Your task to perform on an android device: create a new album in the google photos Image 0: 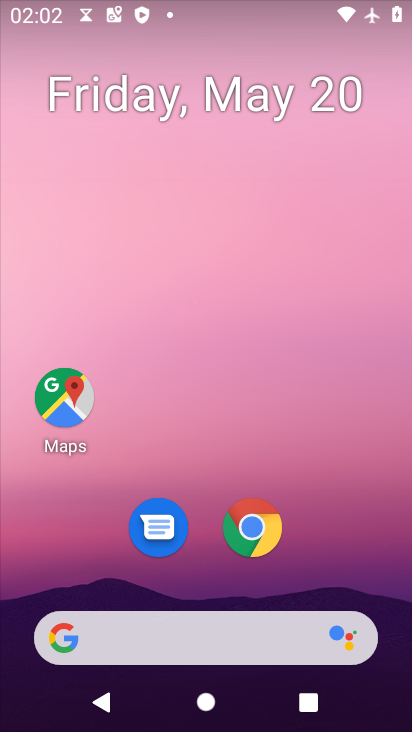
Step 0: press home button
Your task to perform on an android device: create a new album in the google photos Image 1: 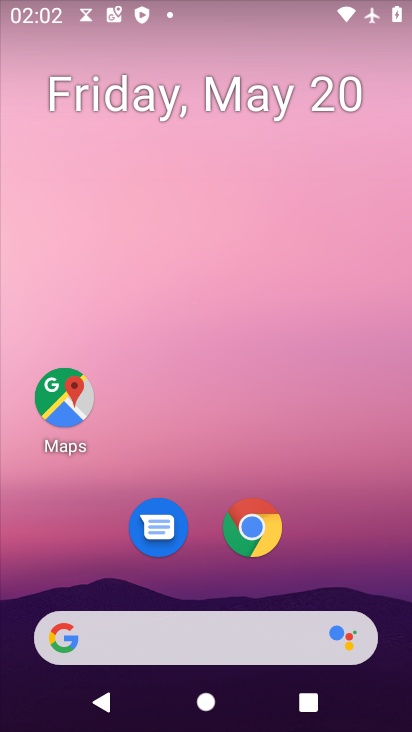
Step 1: drag from (196, 509) to (277, 232)
Your task to perform on an android device: create a new album in the google photos Image 2: 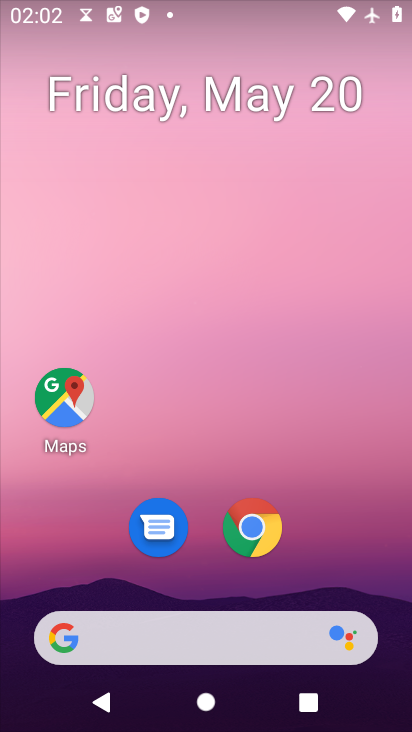
Step 2: drag from (168, 648) to (316, 45)
Your task to perform on an android device: create a new album in the google photos Image 3: 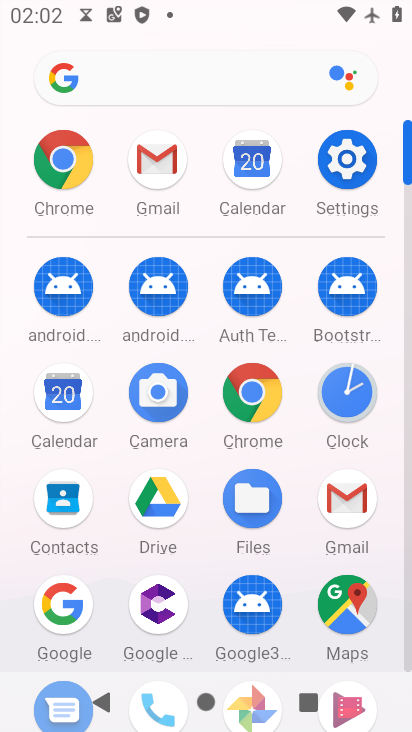
Step 3: drag from (197, 584) to (253, 302)
Your task to perform on an android device: create a new album in the google photos Image 4: 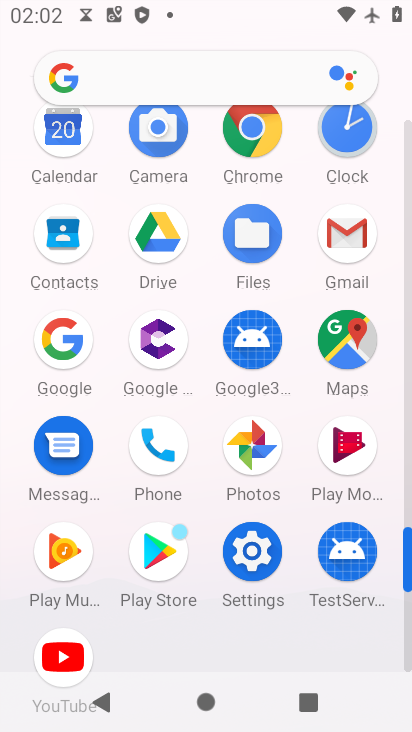
Step 4: click (258, 446)
Your task to perform on an android device: create a new album in the google photos Image 5: 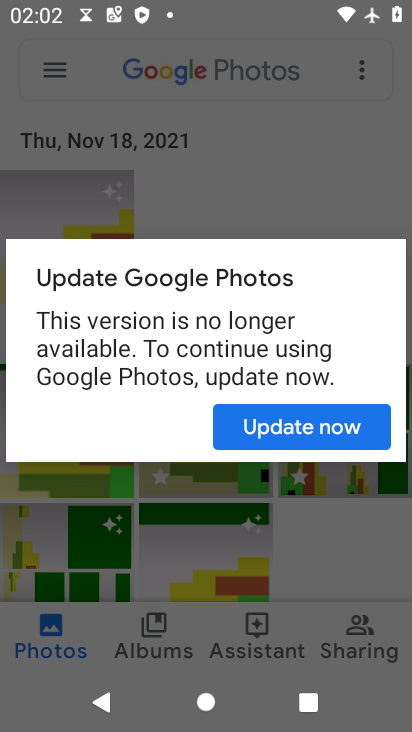
Step 5: click (296, 425)
Your task to perform on an android device: create a new album in the google photos Image 6: 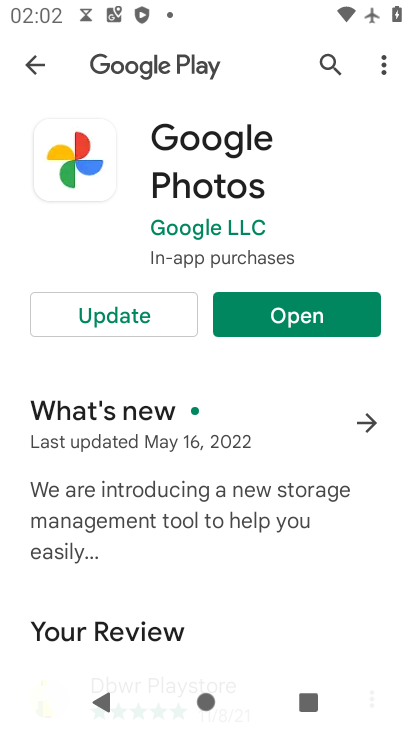
Step 6: click (293, 317)
Your task to perform on an android device: create a new album in the google photos Image 7: 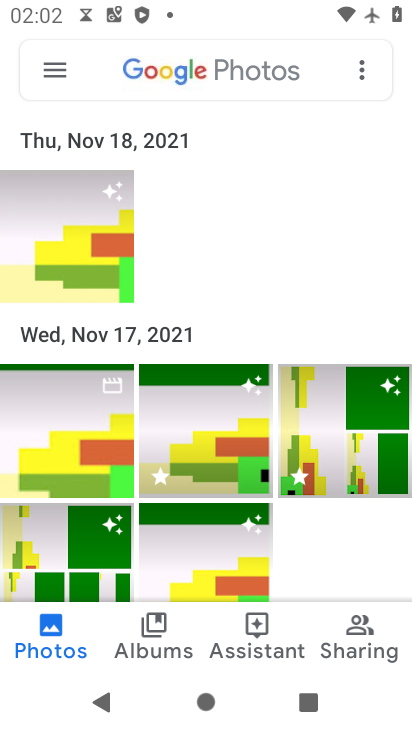
Step 7: click (159, 640)
Your task to perform on an android device: create a new album in the google photos Image 8: 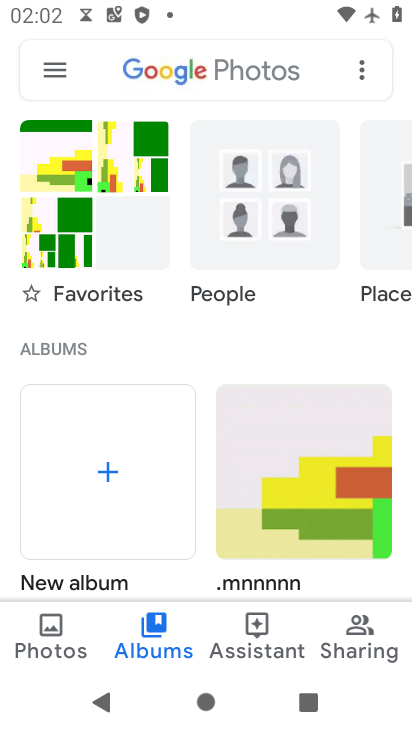
Step 8: click (112, 470)
Your task to perform on an android device: create a new album in the google photos Image 9: 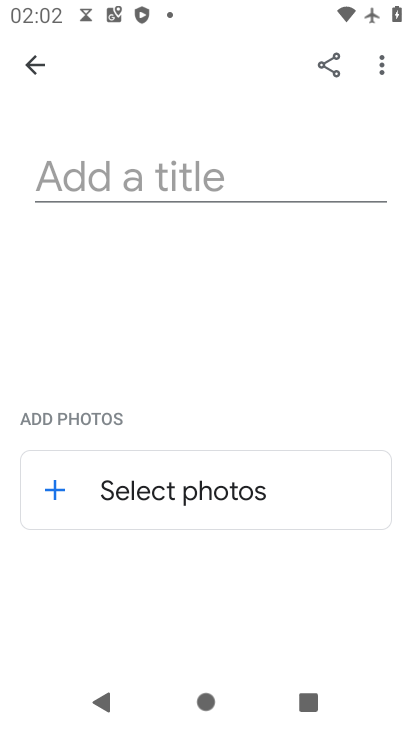
Step 9: click (162, 488)
Your task to perform on an android device: create a new album in the google photos Image 10: 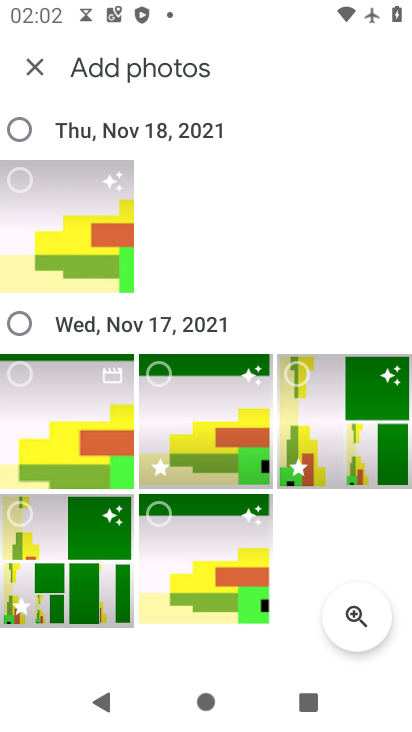
Step 10: click (41, 232)
Your task to perform on an android device: create a new album in the google photos Image 11: 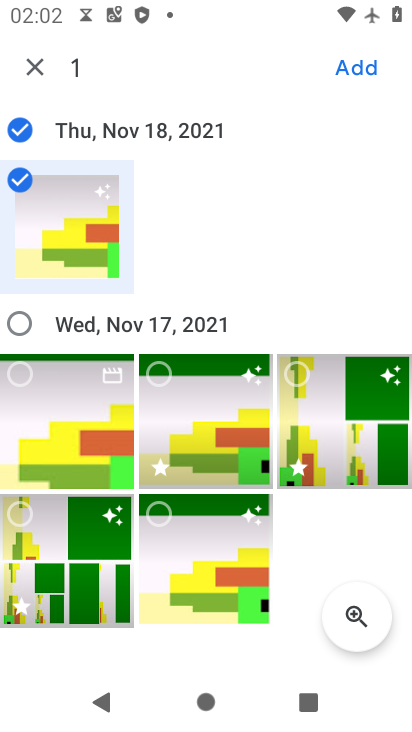
Step 11: click (48, 417)
Your task to perform on an android device: create a new album in the google photos Image 12: 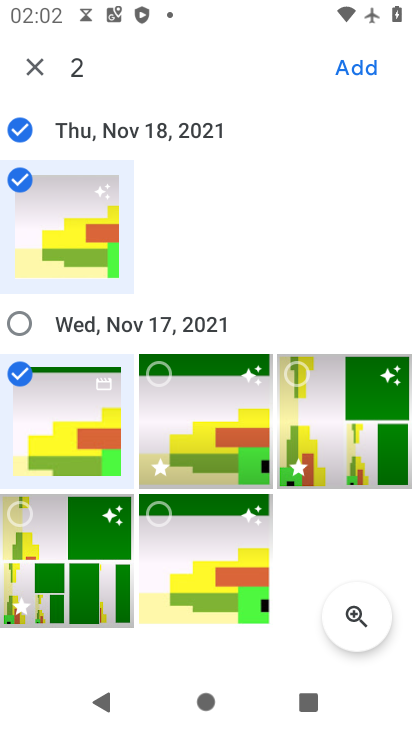
Step 12: click (158, 422)
Your task to perform on an android device: create a new album in the google photos Image 13: 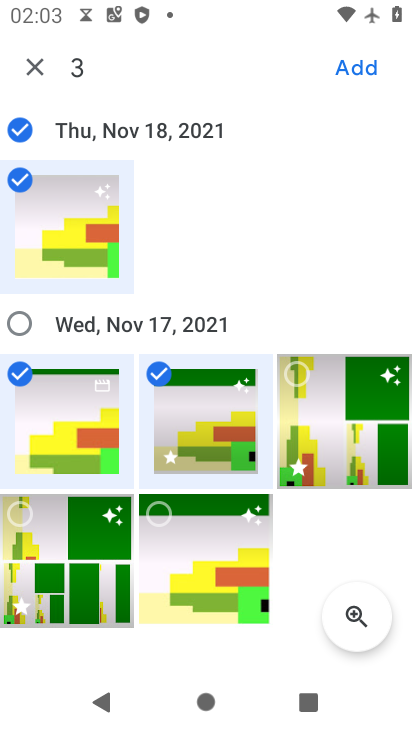
Step 13: click (361, 67)
Your task to perform on an android device: create a new album in the google photos Image 14: 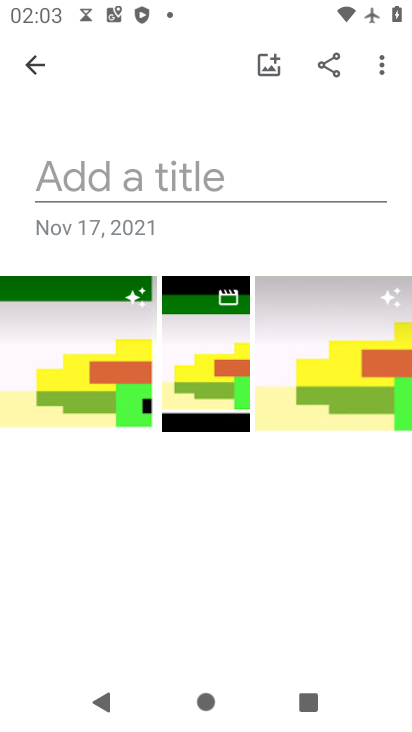
Step 14: task complete